Your task to perform on an android device: open a new tab in the chrome app Image 0: 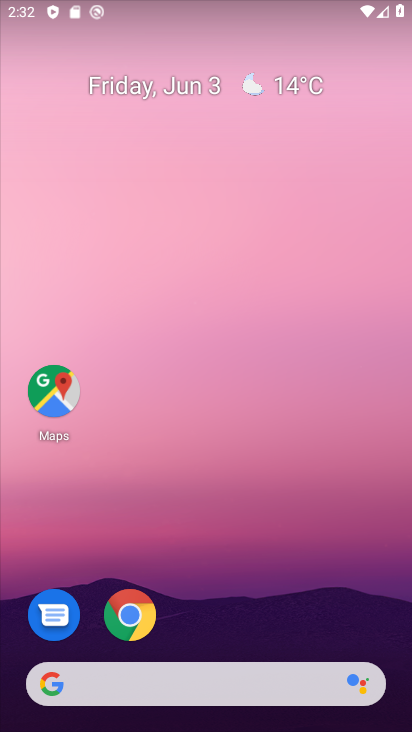
Step 0: press home button
Your task to perform on an android device: open a new tab in the chrome app Image 1: 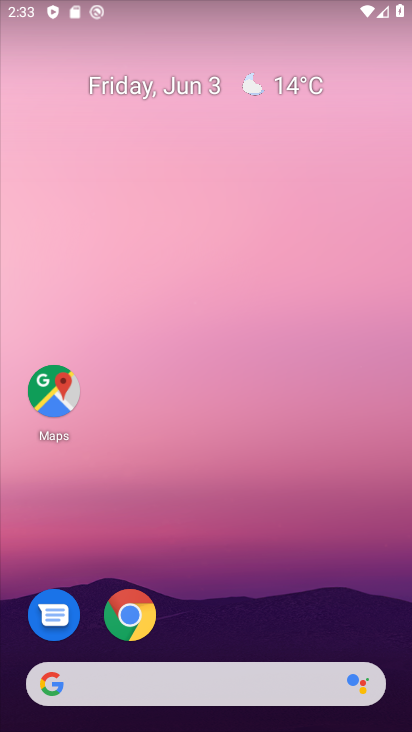
Step 1: click (130, 618)
Your task to perform on an android device: open a new tab in the chrome app Image 2: 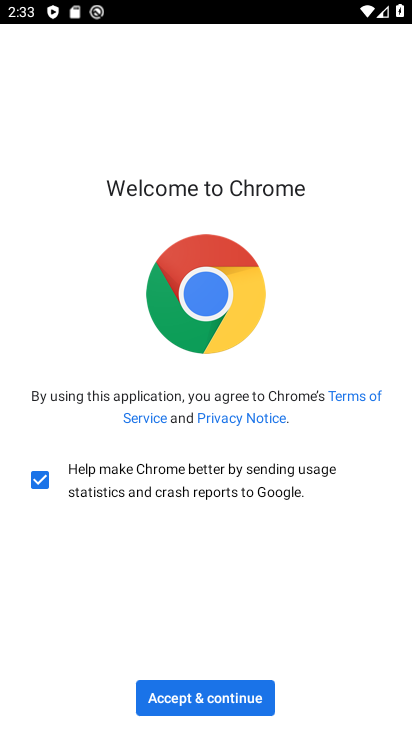
Step 2: click (171, 703)
Your task to perform on an android device: open a new tab in the chrome app Image 3: 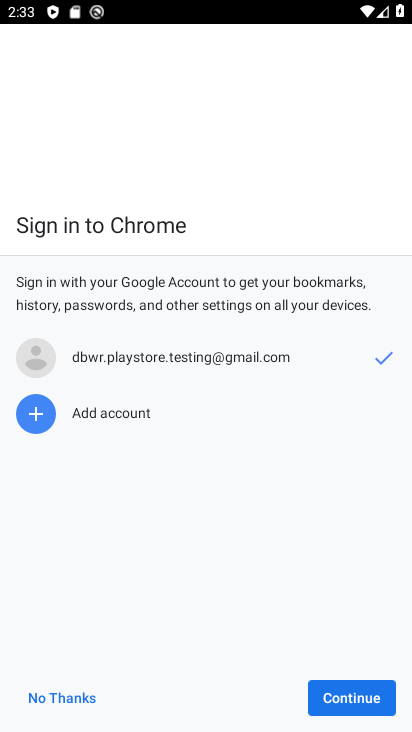
Step 3: click (351, 706)
Your task to perform on an android device: open a new tab in the chrome app Image 4: 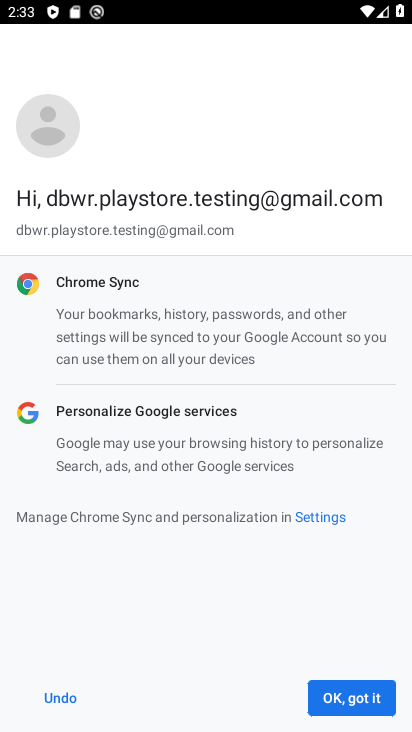
Step 4: click (351, 706)
Your task to perform on an android device: open a new tab in the chrome app Image 5: 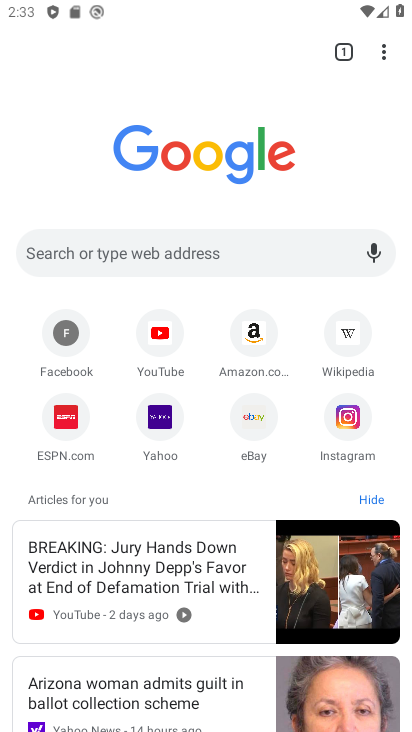
Step 5: click (352, 52)
Your task to perform on an android device: open a new tab in the chrome app Image 6: 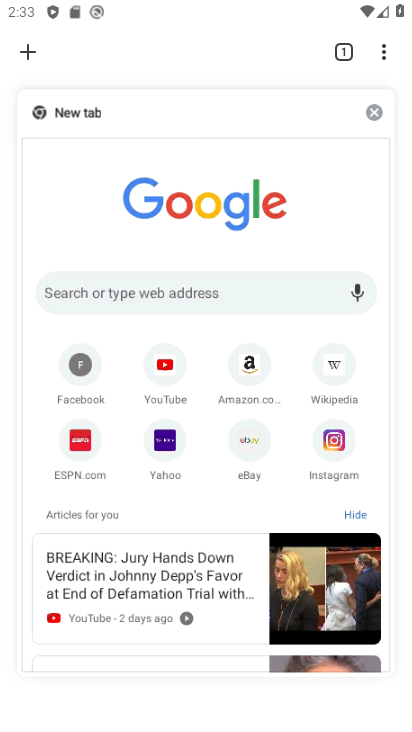
Step 6: click (32, 50)
Your task to perform on an android device: open a new tab in the chrome app Image 7: 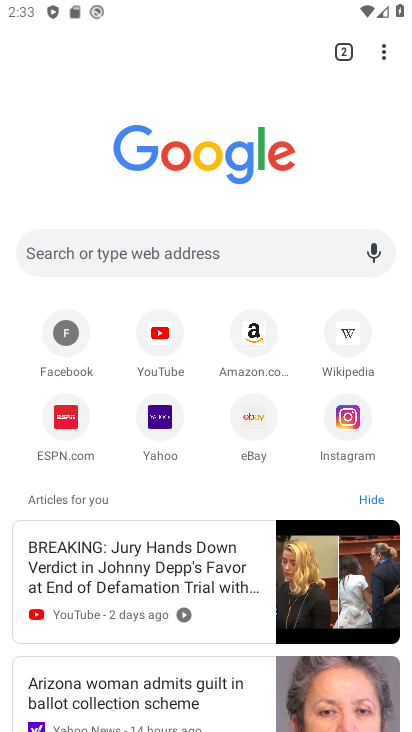
Step 7: task complete